Your task to perform on an android device: open chrome privacy settings Image 0: 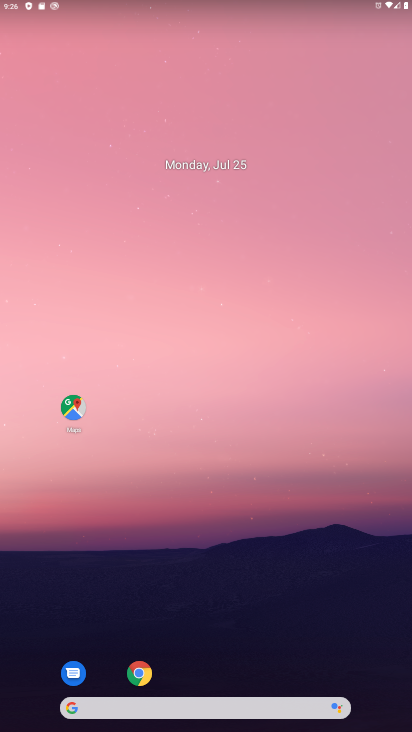
Step 0: click (146, 680)
Your task to perform on an android device: open chrome privacy settings Image 1: 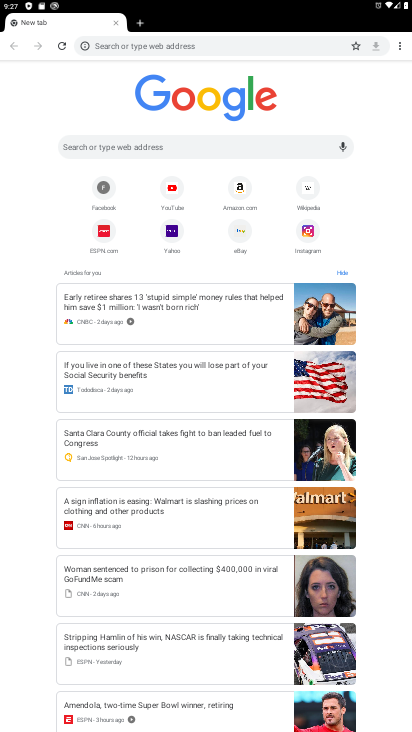
Step 1: click (400, 45)
Your task to perform on an android device: open chrome privacy settings Image 2: 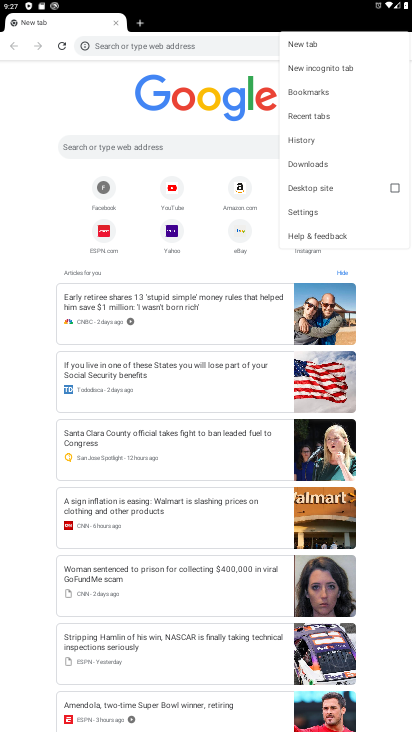
Step 2: click (343, 212)
Your task to perform on an android device: open chrome privacy settings Image 3: 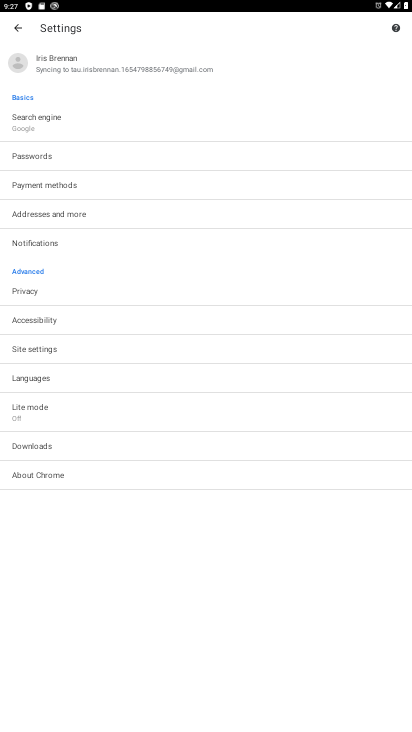
Step 3: click (24, 280)
Your task to perform on an android device: open chrome privacy settings Image 4: 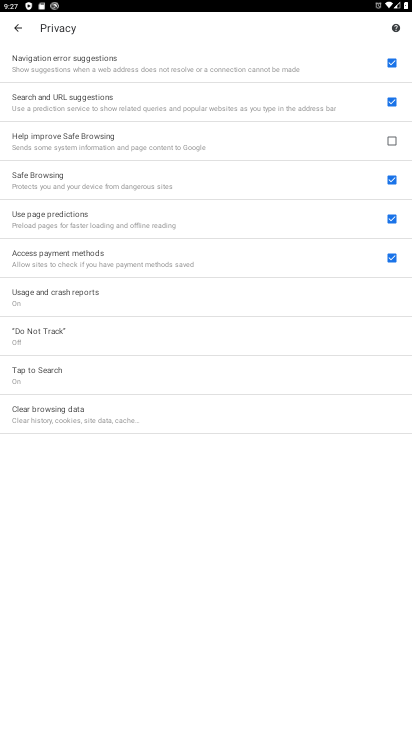
Step 4: task complete